Your task to perform on an android device: refresh tabs in the chrome app Image 0: 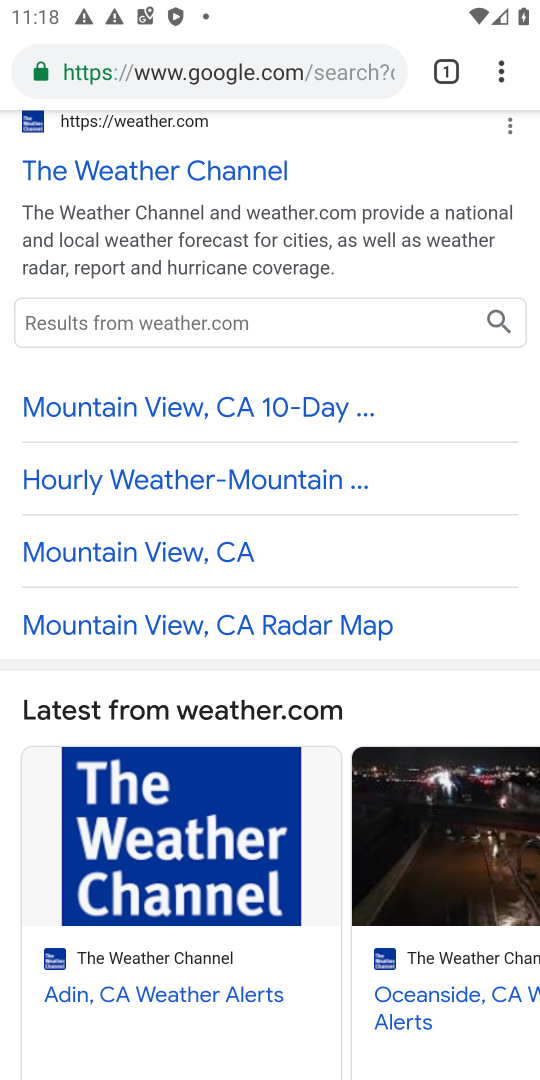
Step 0: click (516, 70)
Your task to perform on an android device: refresh tabs in the chrome app Image 1: 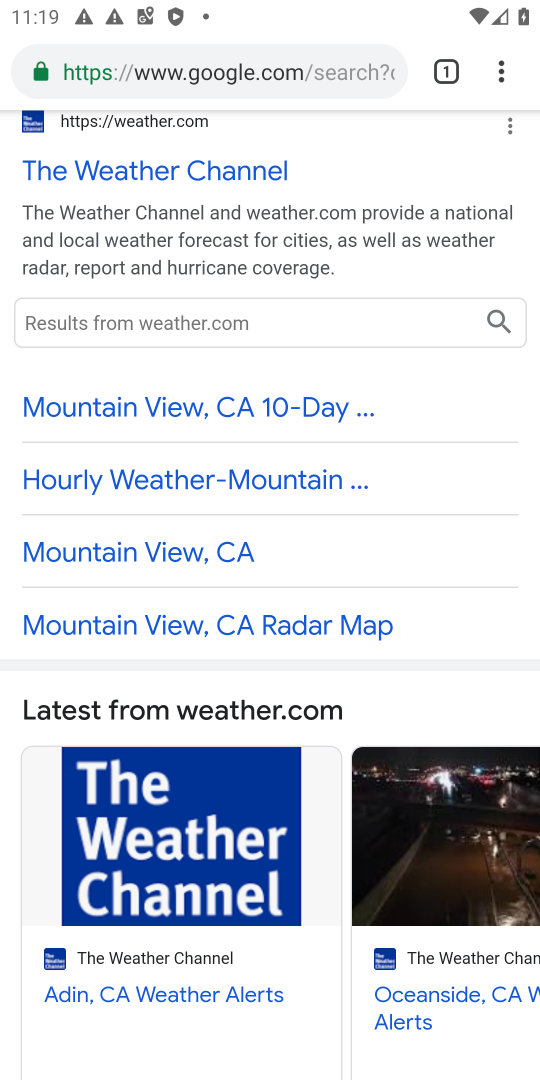
Step 1: click (499, 63)
Your task to perform on an android device: refresh tabs in the chrome app Image 2: 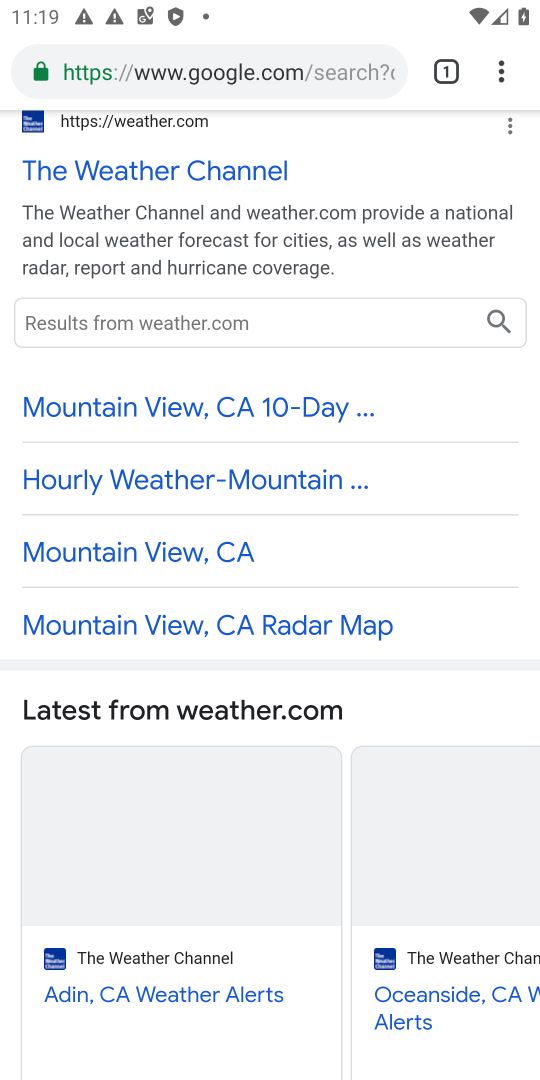
Step 2: task complete